Your task to perform on an android device: check out phone information Image 0: 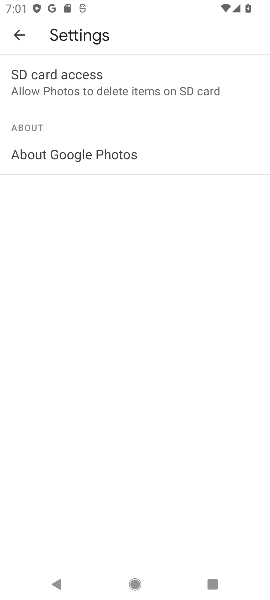
Step 0: press home button
Your task to perform on an android device: check out phone information Image 1: 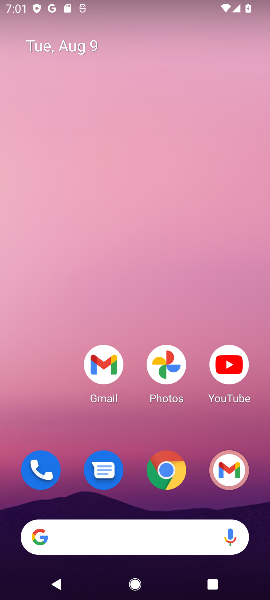
Step 1: drag from (39, 574) to (106, 113)
Your task to perform on an android device: check out phone information Image 2: 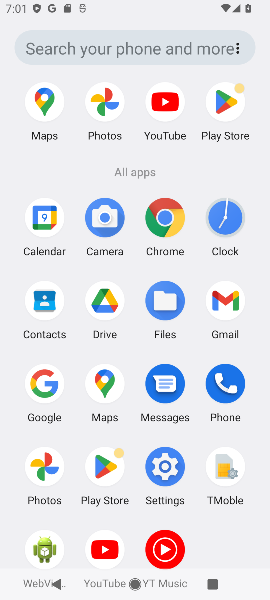
Step 2: click (165, 459)
Your task to perform on an android device: check out phone information Image 3: 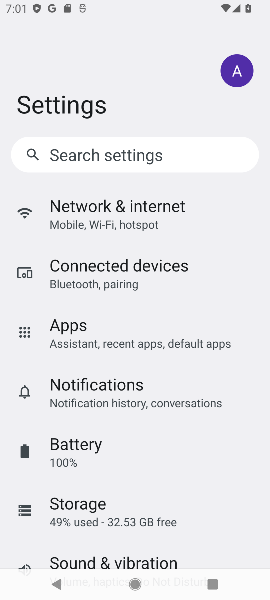
Step 3: drag from (176, 493) to (196, 16)
Your task to perform on an android device: check out phone information Image 4: 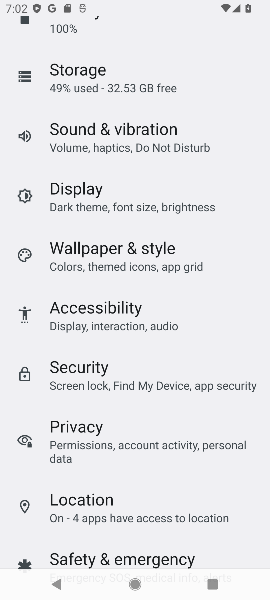
Step 4: drag from (216, 530) to (199, 595)
Your task to perform on an android device: check out phone information Image 5: 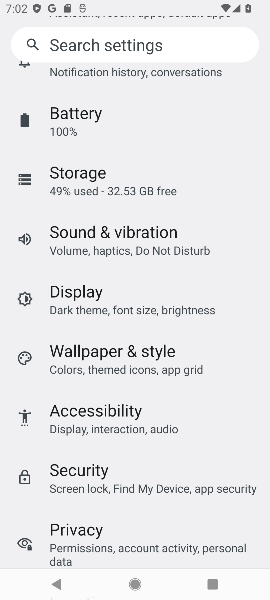
Step 5: drag from (213, 554) to (243, 83)
Your task to perform on an android device: check out phone information Image 6: 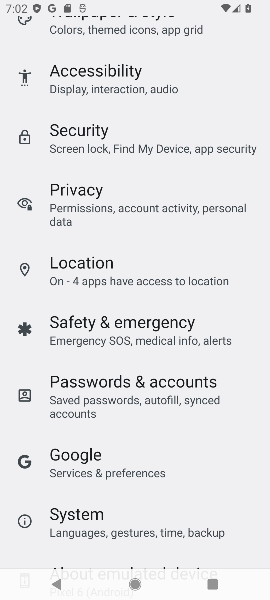
Step 6: drag from (220, 545) to (219, 60)
Your task to perform on an android device: check out phone information Image 7: 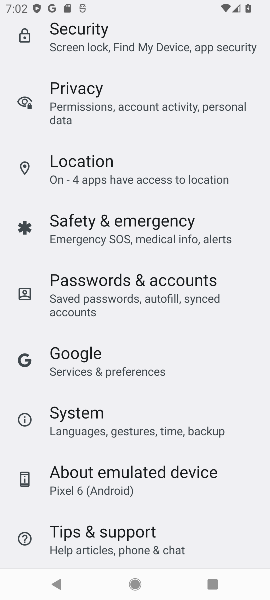
Step 7: drag from (187, 526) to (197, 0)
Your task to perform on an android device: check out phone information Image 8: 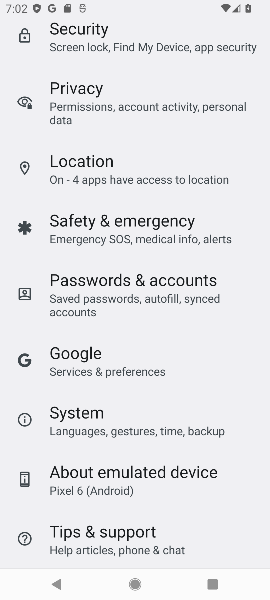
Step 8: click (149, 488)
Your task to perform on an android device: check out phone information Image 9: 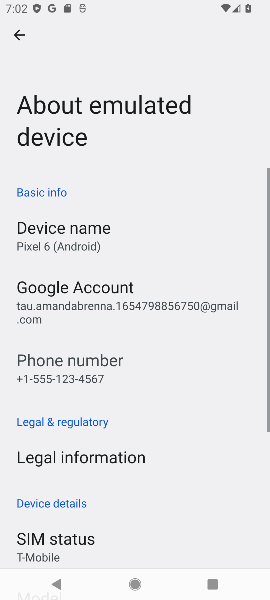
Step 9: task complete